Your task to perform on an android device: turn off smart reply in the gmail app Image 0: 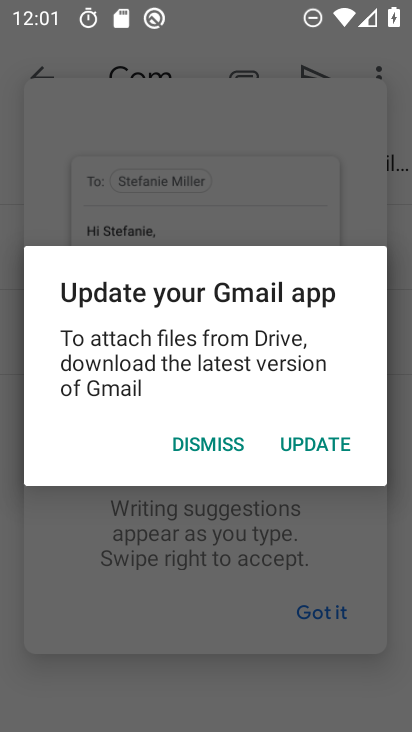
Step 0: press home button
Your task to perform on an android device: turn off smart reply in the gmail app Image 1: 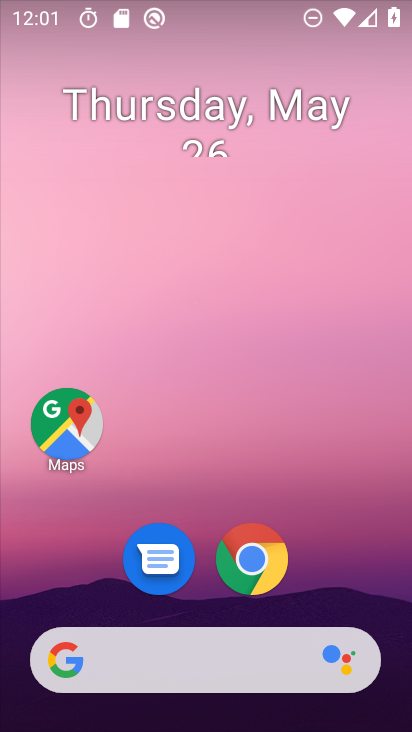
Step 1: drag from (348, 536) to (344, 125)
Your task to perform on an android device: turn off smart reply in the gmail app Image 2: 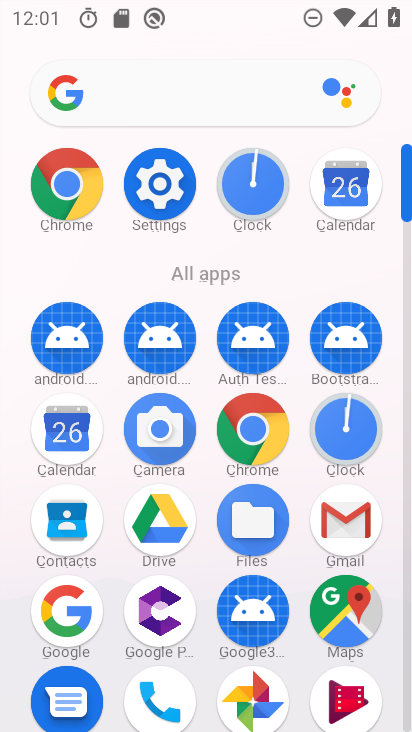
Step 2: click (362, 544)
Your task to perform on an android device: turn off smart reply in the gmail app Image 3: 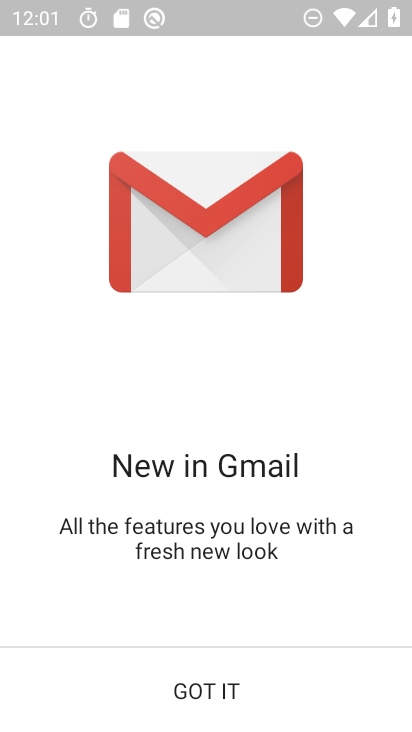
Step 3: click (235, 682)
Your task to perform on an android device: turn off smart reply in the gmail app Image 4: 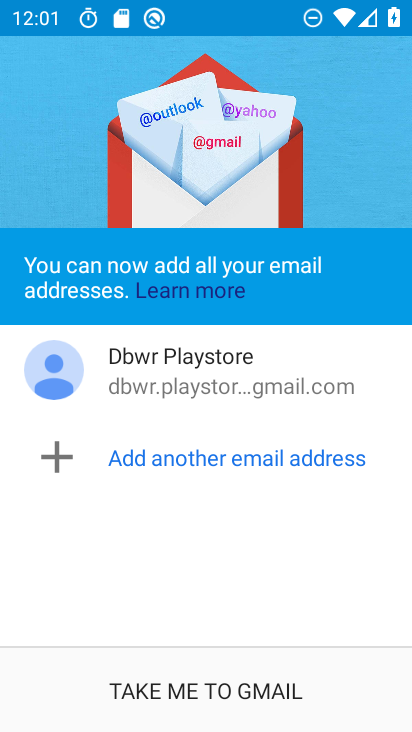
Step 4: click (255, 680)
Your task to perform on an android device: turn off smart reply in the gmail app Image 5: 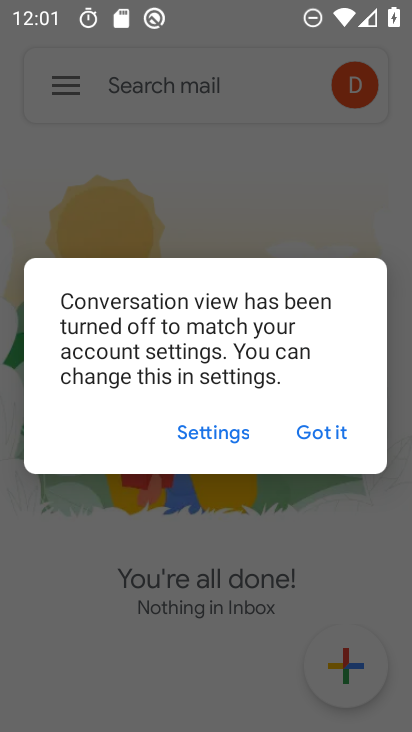
Step 5: press home button
Your task to perform on an android device: turn off smart reply in the gmail app Image 6: 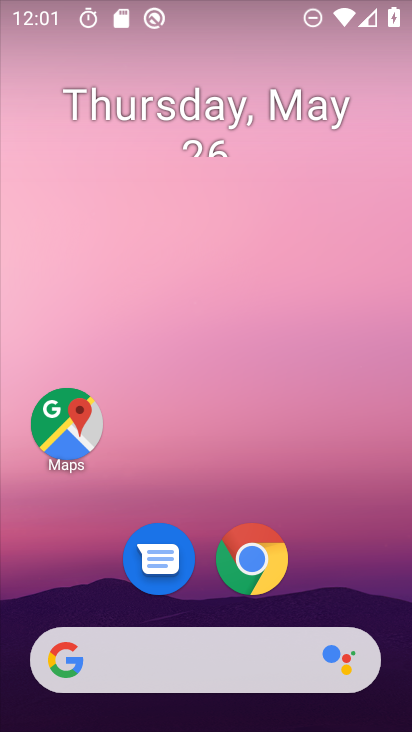
Step 6: drag from (341, 524) to (388, 209)
Your task to perform on an android device: turn off smart reply in the gmail app Image 7: 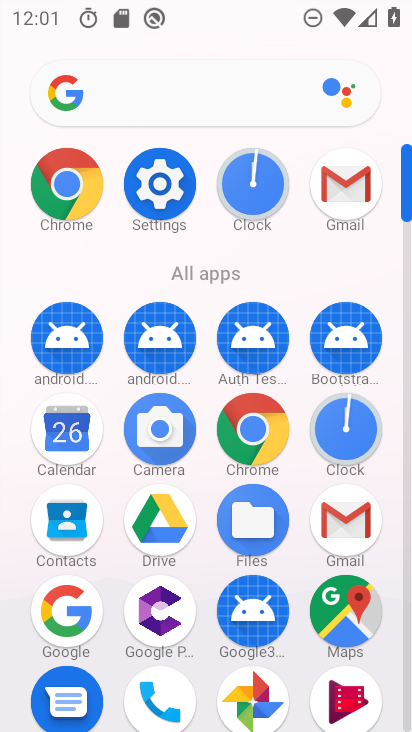
Step 7: click (363, 189)
Your task to perform on an android device: turn off smart reply in the gmail app Image 8: 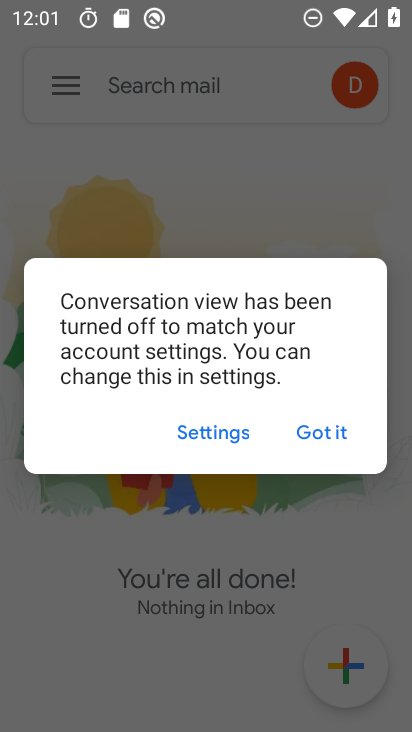
Step 8: click (317, 439)
Your task to perform on an android device: turn off smart reply in the gmail app Image 9: 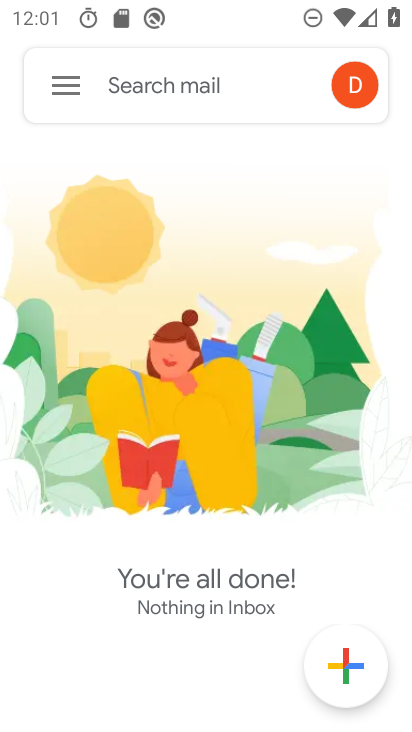
Step 9: click (53, 89)
Your task to perform on an android device: turn off smart reply in the gmail app Image 10: 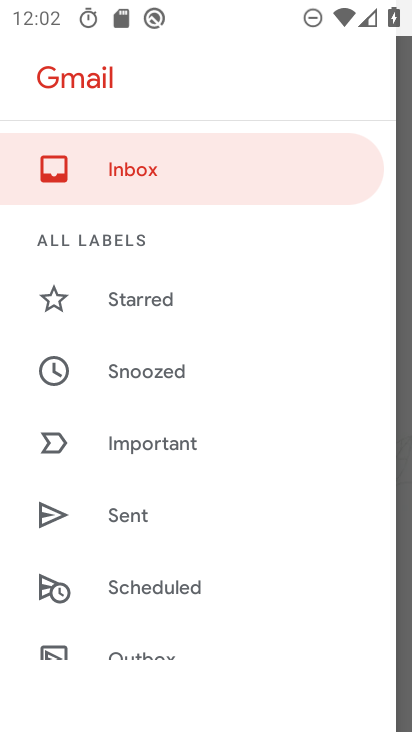
Step 10: drag from (204, 609) to (249, 273)
Your task to perform on an android device: turn off smart reply in the gmail app Image 11: 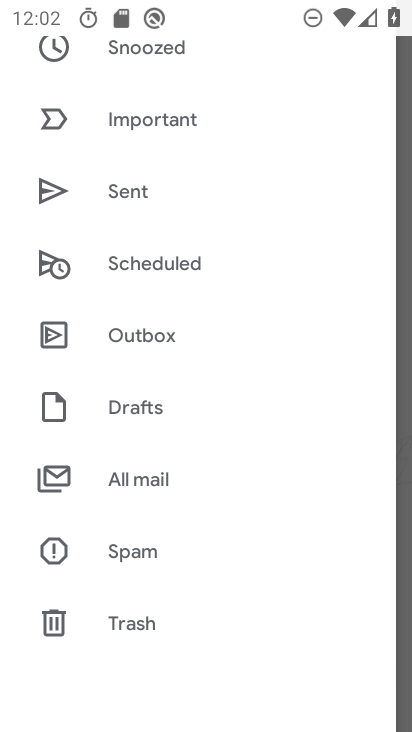
Step 11: drag from (176, 604) to (212, 247)
Your task to perform on an android device: turn off smart reply in the gmail app Image 12: 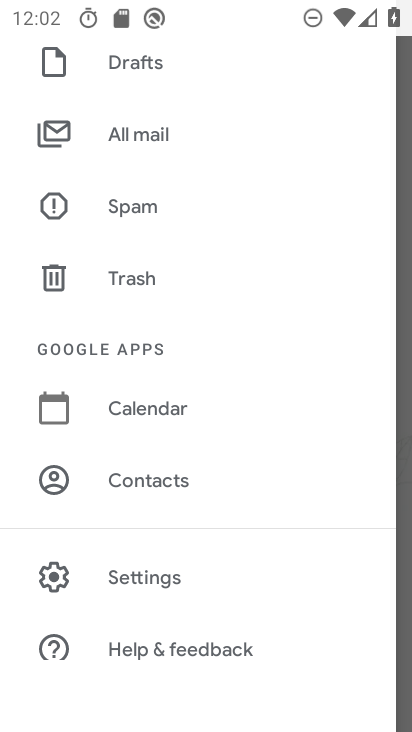
Step 12: click (163, 580)
Your task to perform on an android device: turn off smart reply in the gmail app Image 13: 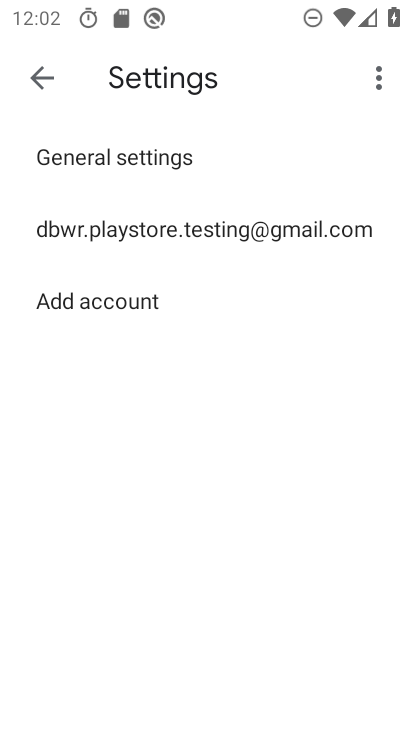
Step 13: click (195, 230)
Your task to perform on an android device: turn off smart reply in the gmail app Image 14: 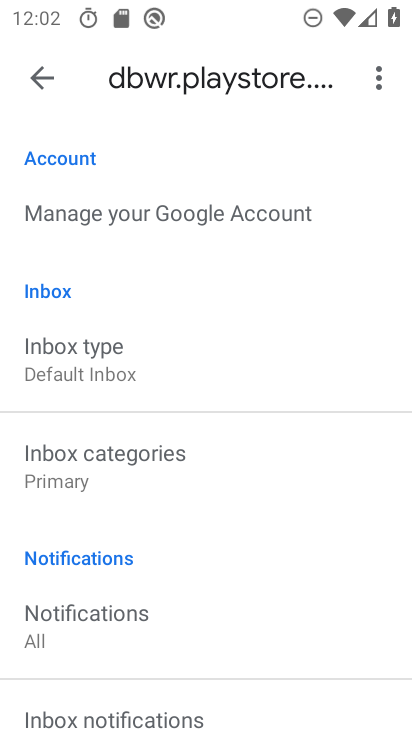
Step 14: drag from (214, 621) to (254, 279)
Your task to perform on an android device: turn off smart reply in the gmail app Image 15: 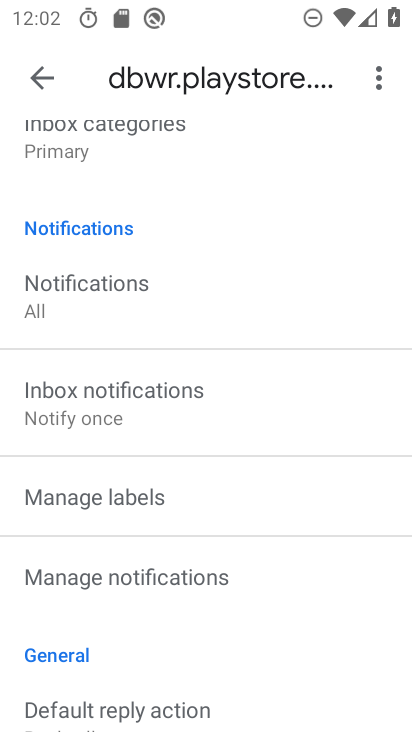
Step 15: drag from (216, 623) to (227, 305)
Your task to perform on an android device: turn off smart reply in the gmail app Image 16: 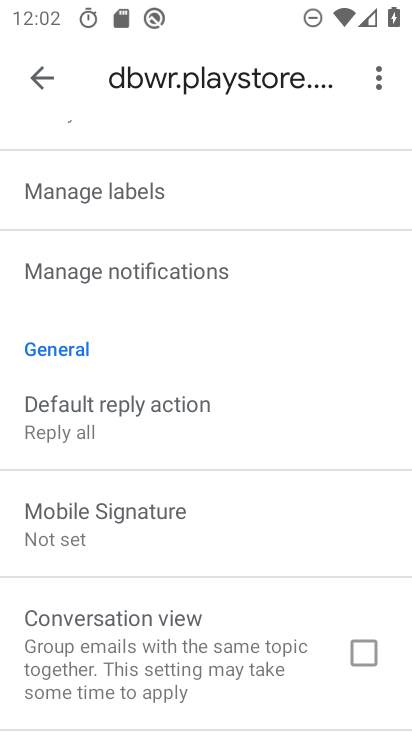
Step 16: drag from (236, 481) to (284, 221)
Your task to perform on an android device: turn off smart reply in the gmail app Image 17: 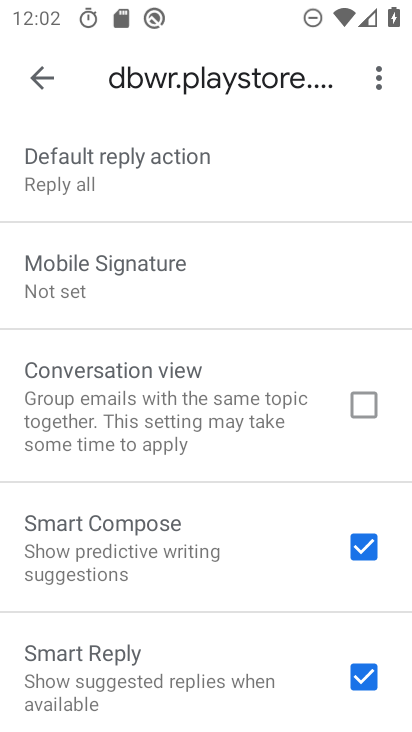
Step 17: drag from (250, 626) to (259, 349)
Your task to perform on an android device: turn off smart reply in the gmail app Image 18: 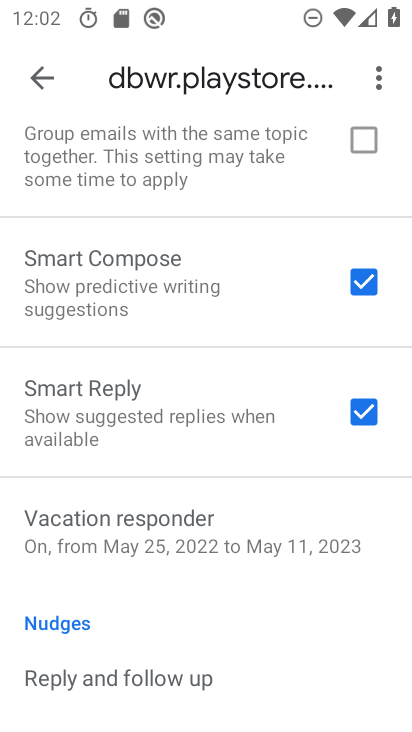
Step 18: click (369, 406)
Your task to perform on an android device: turn off smart reply in the gmail app Image 19: 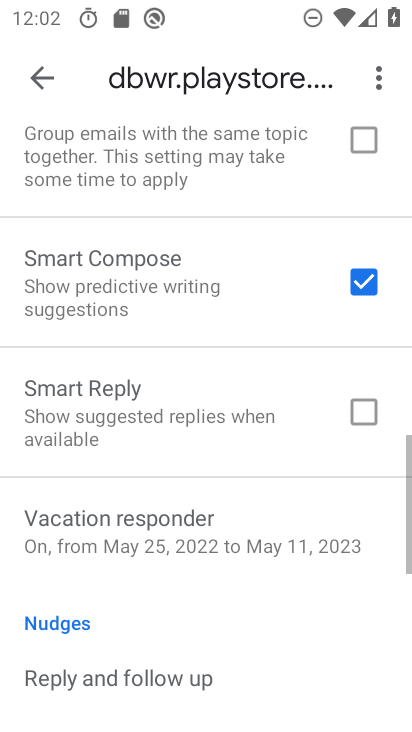
Step 19: task complete